Your task to perform on an android device: turn notification dots off Image 0: 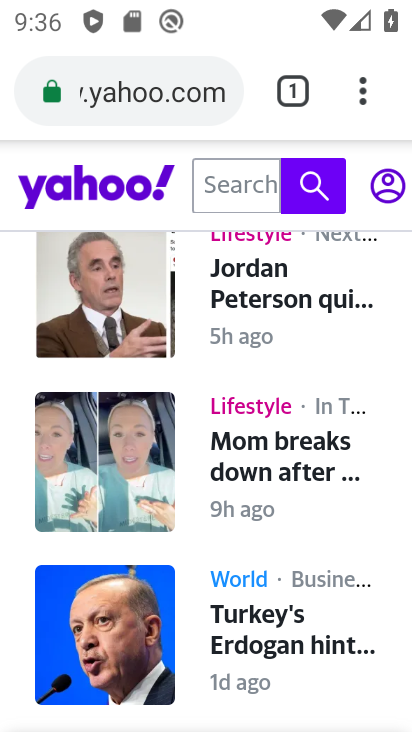
Step 0: press home button
Your task to perform on an android device: turn notification dots off Image 1: 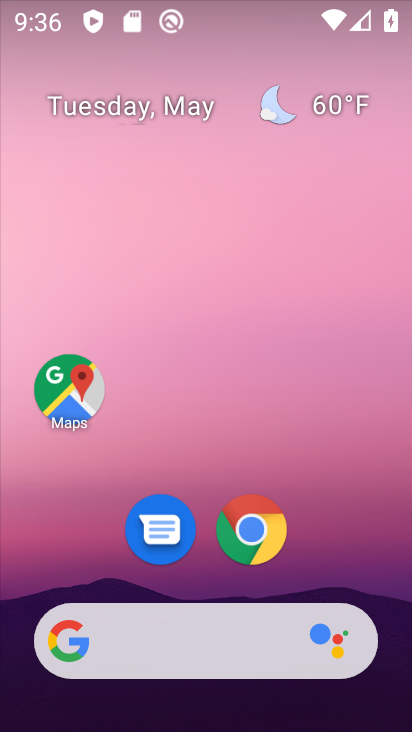
Step 1: drag from (161, 571) to (160, 278)
Your task to perform on an android device: turn notification dots off Image 2: 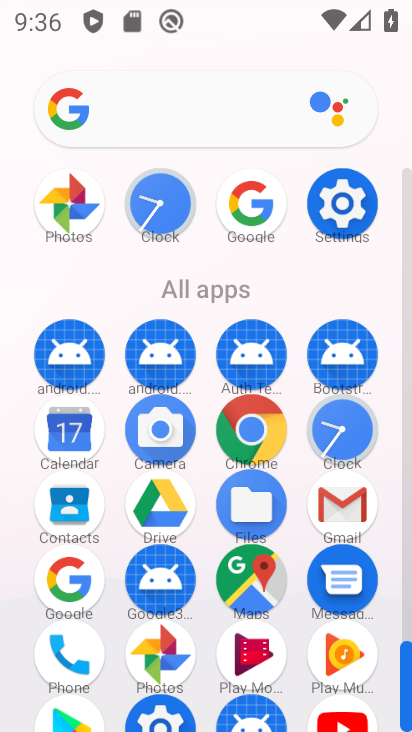
Step 2: click (335, 203)
Your task to perform on an android device: turn notification dots off Image 3: 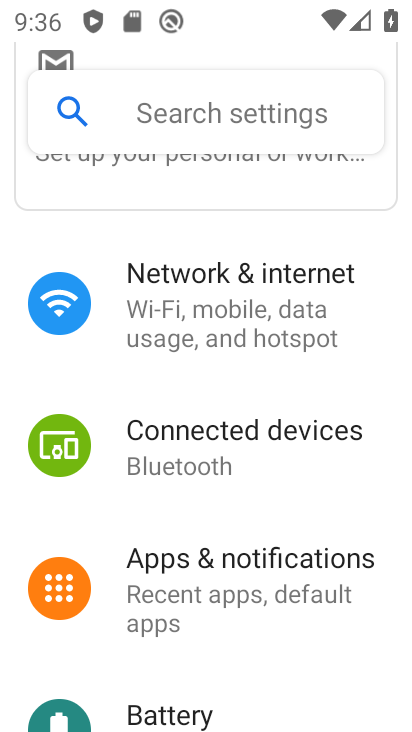
Step 3: click (179, 596)
Your task to perform on an android device: turn notification dots off Image 4: 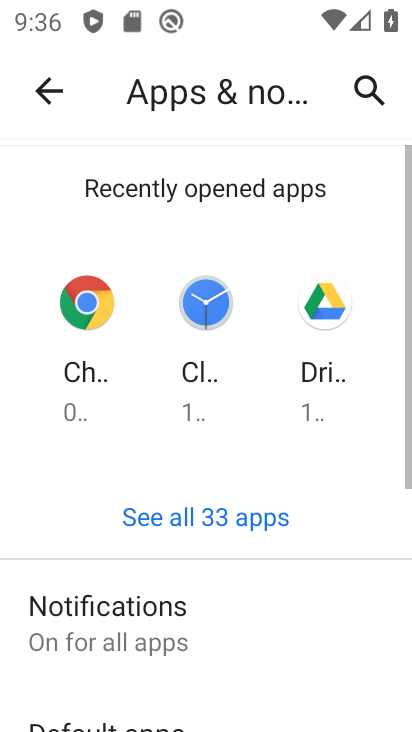
Step 4: drag from (172, 673) to (191, 407)
Your task to perform on an android device: turn notification dots off Image 5: 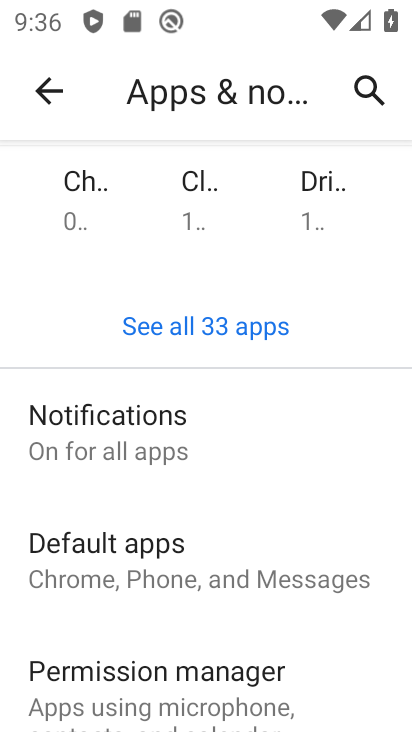
Step 5: click (141, 425)
Your task to perform on an android device: turn notification dots off Image 6: 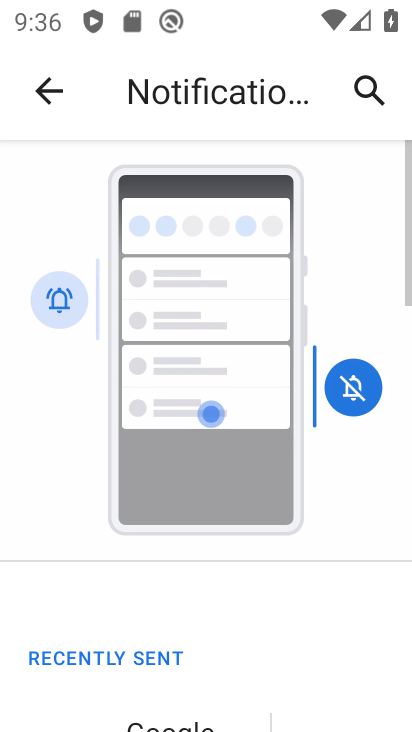
Step 6: drag from (234, 653) to (287, 211)
Your task to perform on an android device: turn notification dots off Image 7: 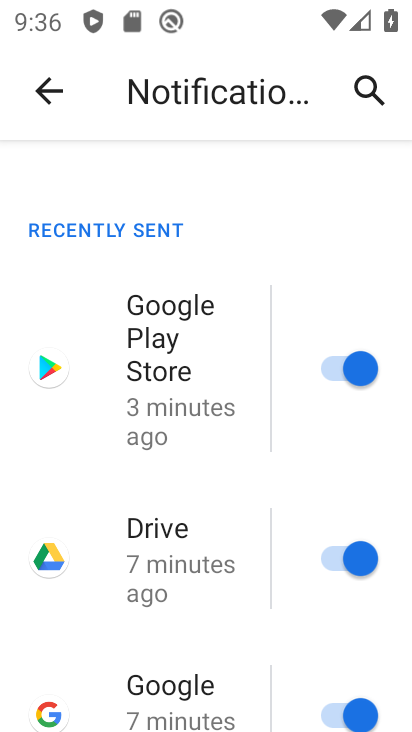
Step 7: drag from (226, 676) to (247, 340)
Your task to perform on an android device: turn notification dots off Image 8: 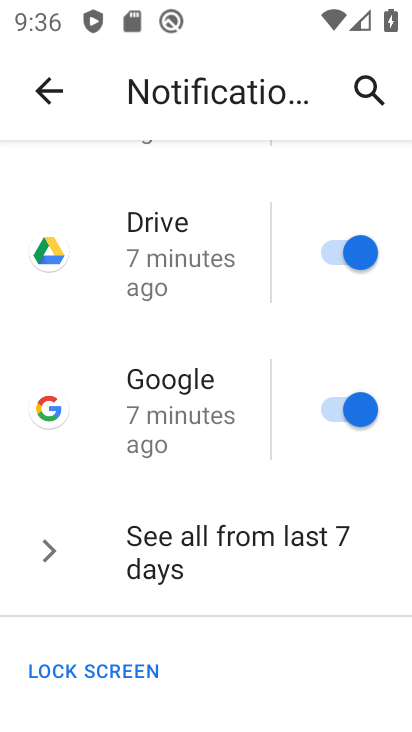
Step 8: drag from (153, 662) to (174, 358)
Your task to perform on an android device: turn notification dots off Image 9: 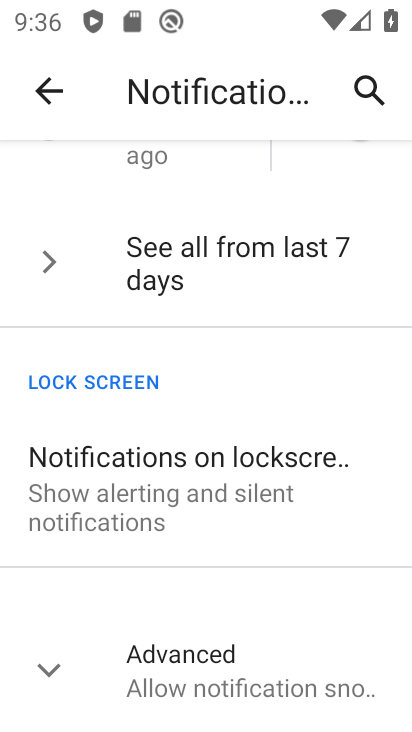
Step 9: click (185, 669)
Your task to perform on an android device: turn notification dots off Image 10: 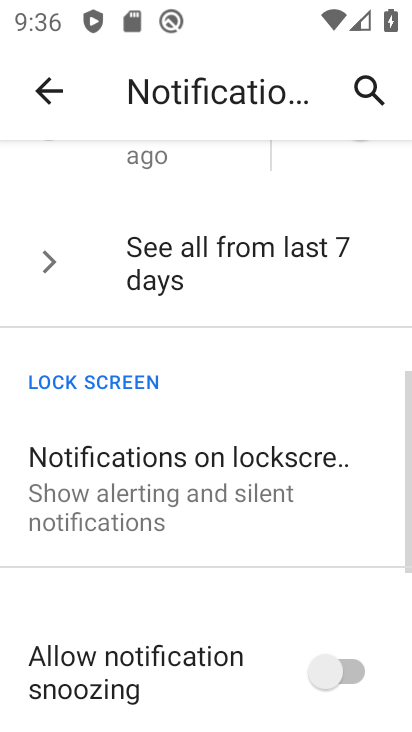
Step 10: task complete